Your task to perform on an android device: turn on priority inbox in the gmail app Image 0: 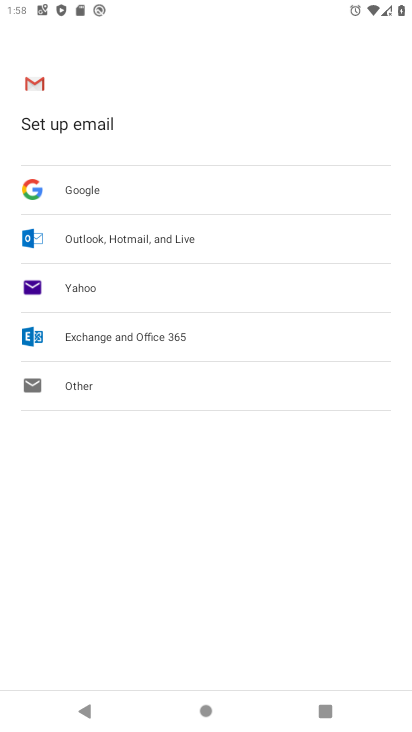
Step 0: press home button
Your task to perform on an android device: turn on priority inbox in the gmail app Image 1: 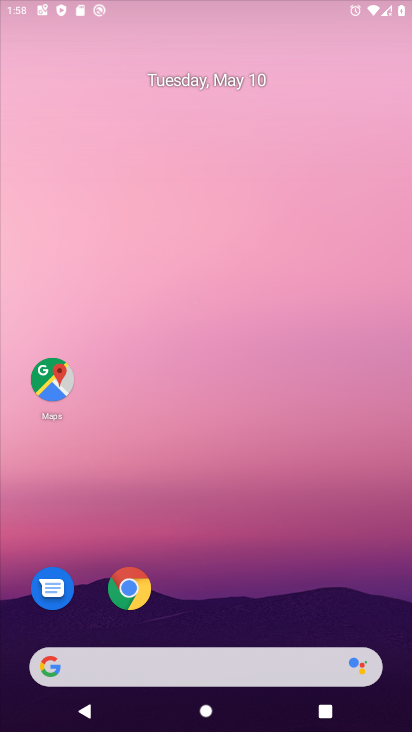
Step 1: drag from (211, 624) to (308, 140)
Your task to perform on an android device: turn on priority inbox in the gmail app Image 2: 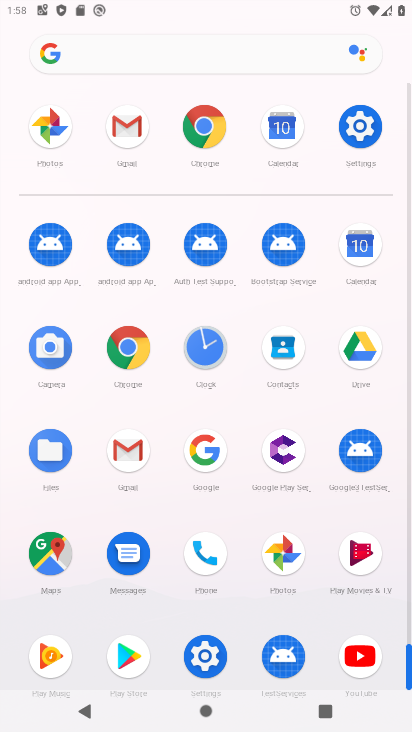
Step 2: click (113, 121)
Your task to perform on an android device: turn on priority inbox in the gmail app Image 3: 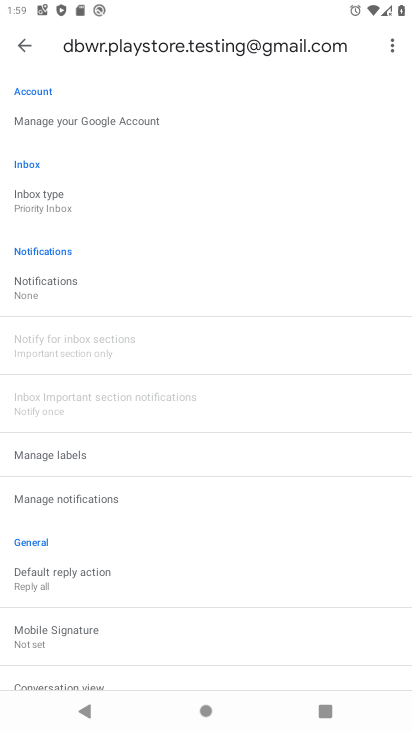
Step 3: click (68, 208)
Your task to perform on an android device: turn on priority inbox in the gmail app Image 4: 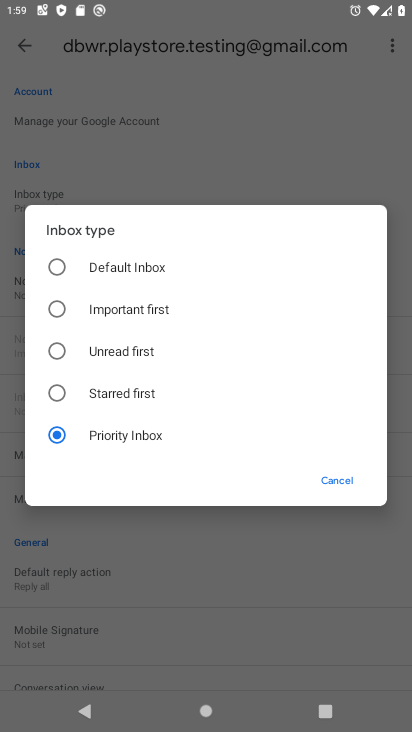
Step 4: task complete